Your task to perform on an android device: Open the calendar and show me this week's events Image 0: 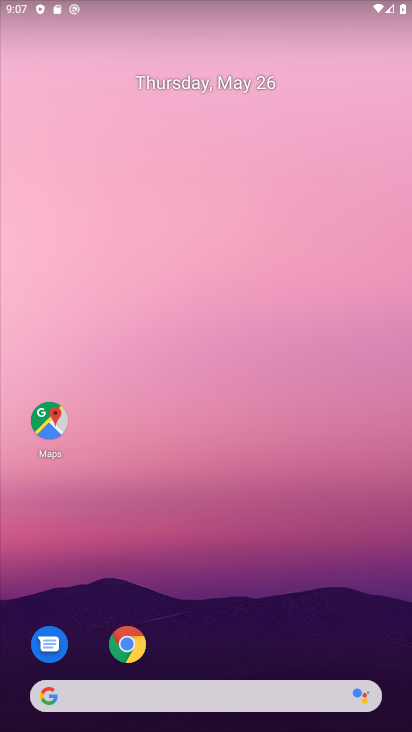
Step 0: drag from (207, 635) to (306, 248)
Your task to perform on an android device: Open the calendar and show me this week's events Image 1: 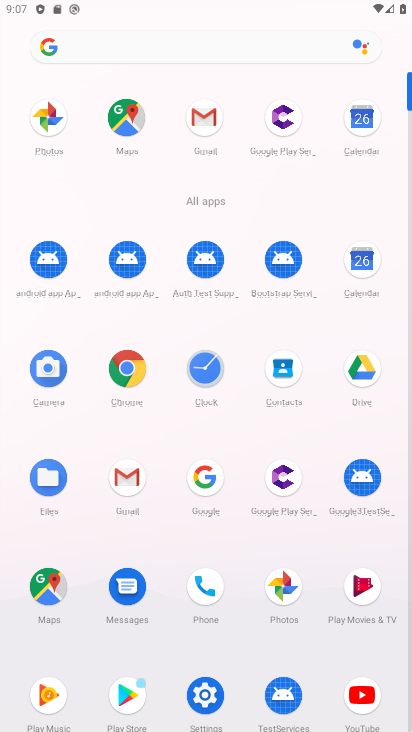
Step 1: click (366, 273)
Your task to perform on an android device: Open the calendar and show me this week's events Image 2: 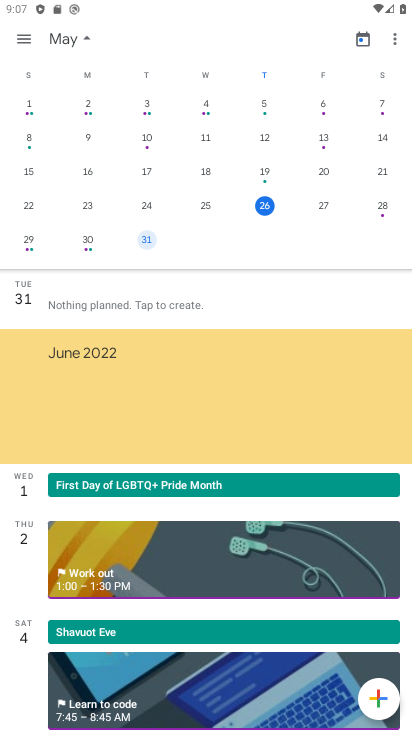
Step 2: click (324, 204)
Your task to perform on an android device: Open the calendar and show me this week's events Image 3: 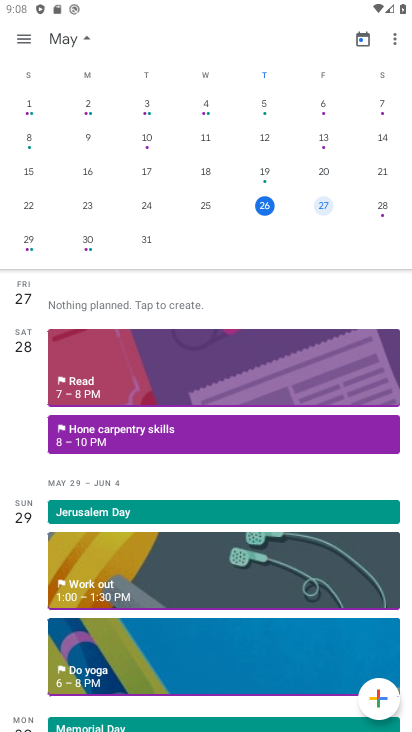
Step 3: click (373, 202)
Your task to perform on an android device: Open the calendar and show me this week's events Image 4: 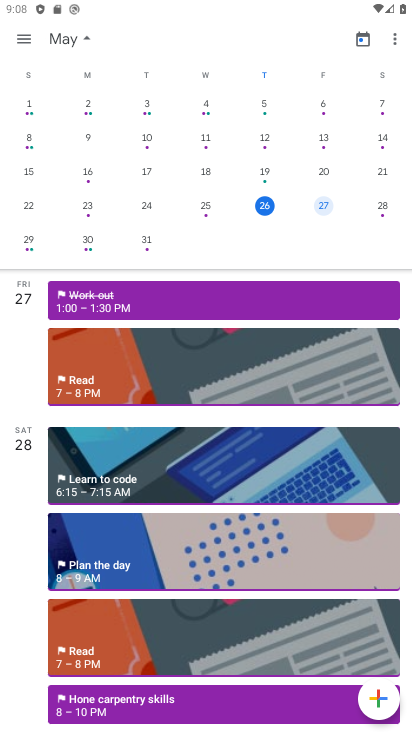
Step 4: task complete